Your task to perform on an android device: check storage Image 0: 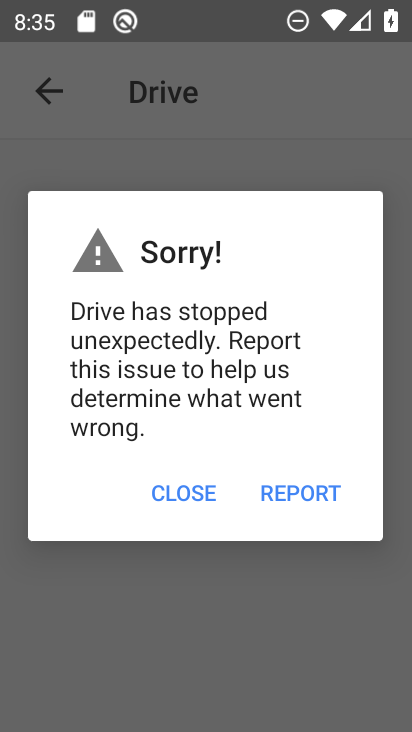
Step 0: press home button
Your task to perform on an android device: check storage Image 1: 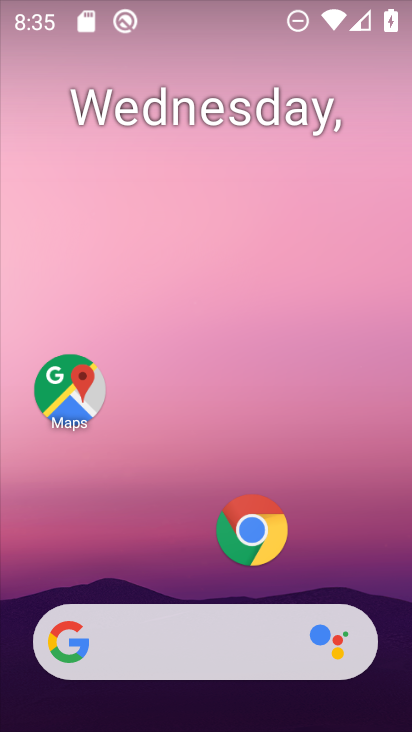
Step 1: drag from (154, 463) to (253, 44)
Your task to perform on an android device: check storage Image 2: 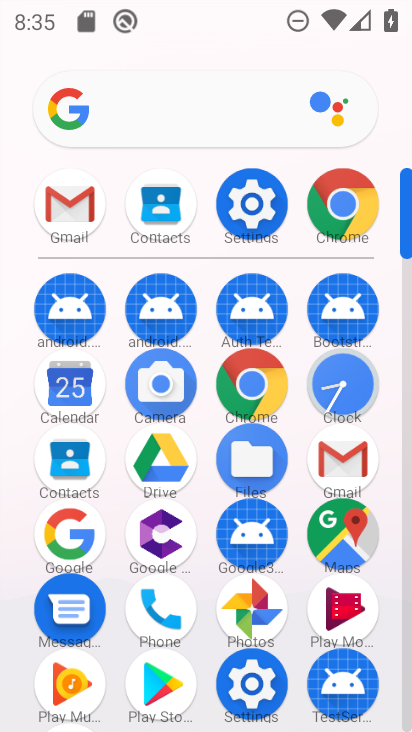
Step 2: click (246, 197)
Your task to perform on an android device: check storage Image 3: 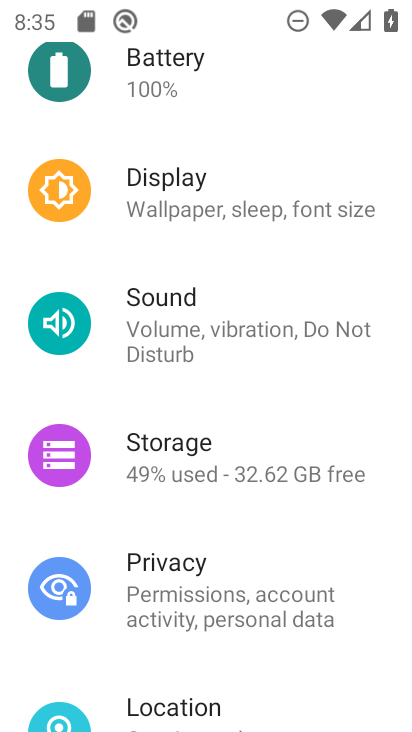
Step 3: click (166, 452)
Your task to perform on an android device: check storage Image 4: 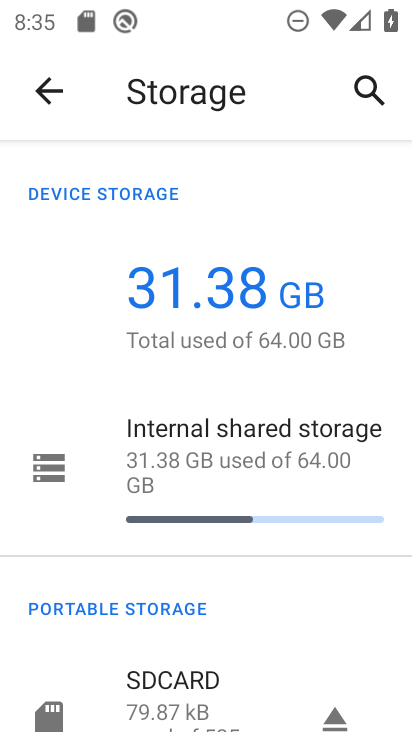
Step 4: task complete